Your task to perform on an android device: Open maps Image 0: 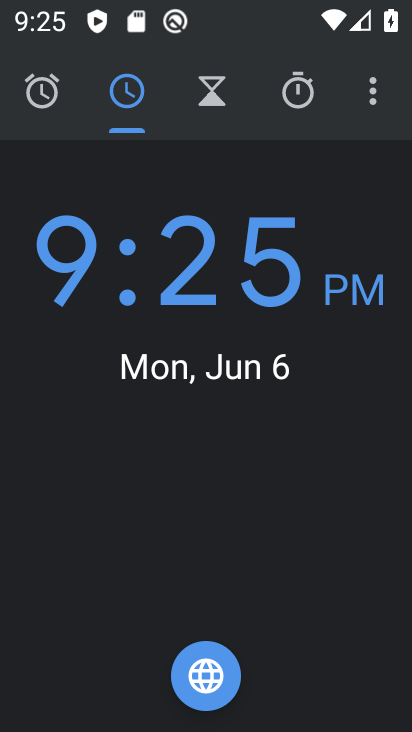
Step 0: press home button
Your task to perform on an android device: Open maps Image 1: 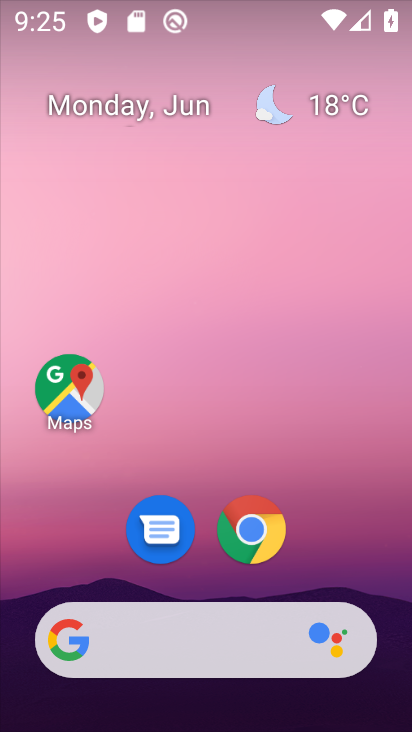
Step 1: click (76, 386)
Your task to perform on an android device: Open maps Image 2: 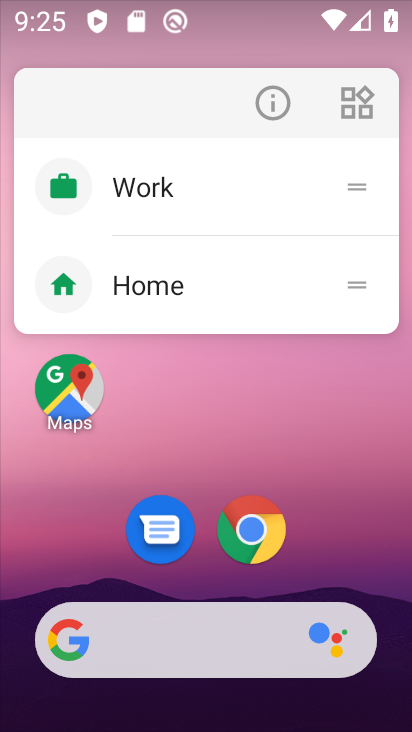
Step 2: click (76, 386)
Your task to perform on an android device: Open maps Image 3: 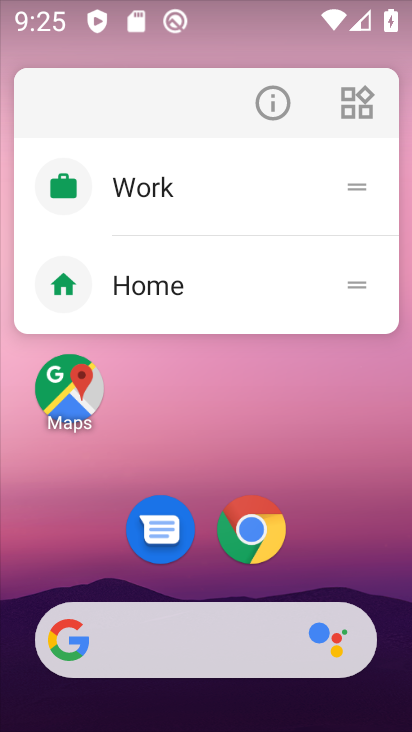
Step 3: click (76, 386)
Your task to perform on an android device: Open maps Image 4: 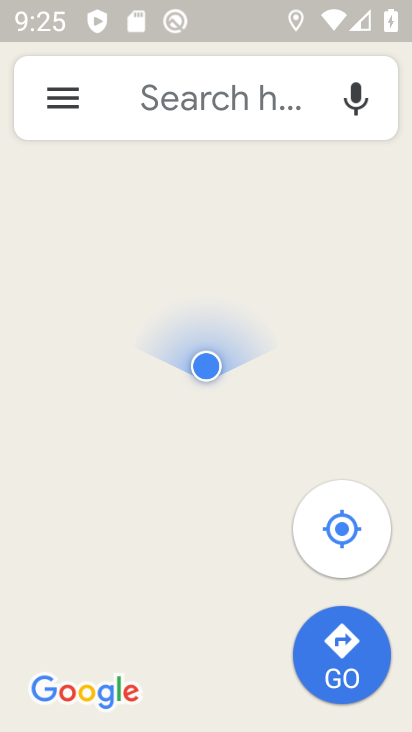
Step 4: task complete